Your task to perform on an android device: Go to Reddit.com Image 0: 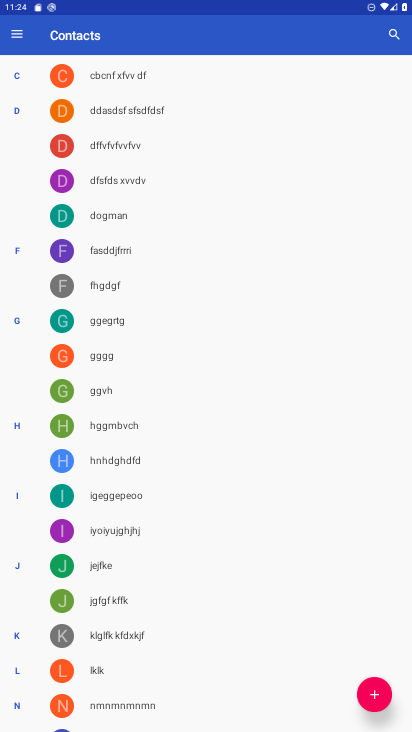
Step 0: press home button
Your task to perform on an android device: Go to Reddit.com Image 1: 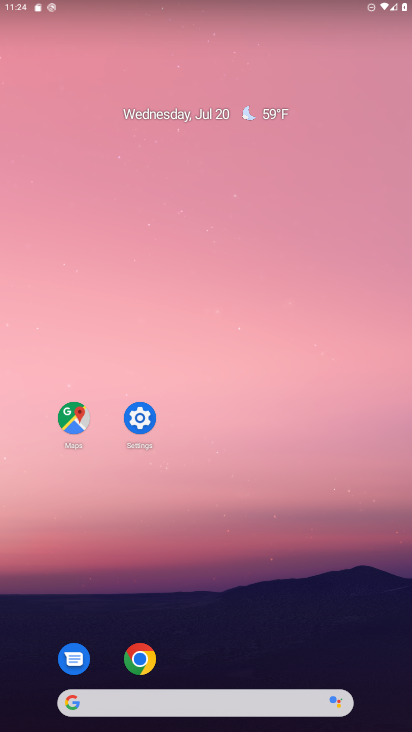
Step 1: click (142, 651)
Your task to perform on an android device: Go to Reddit.com Image 2: 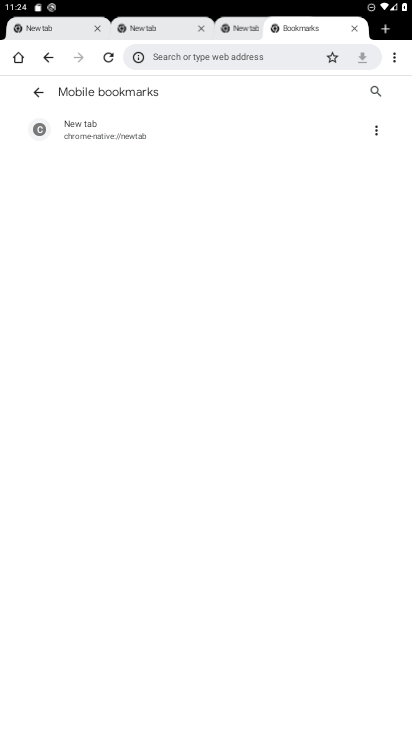
Step 2: click (241, 59)
Your task to perform on an android device: Go to Reddit.com Image 3: 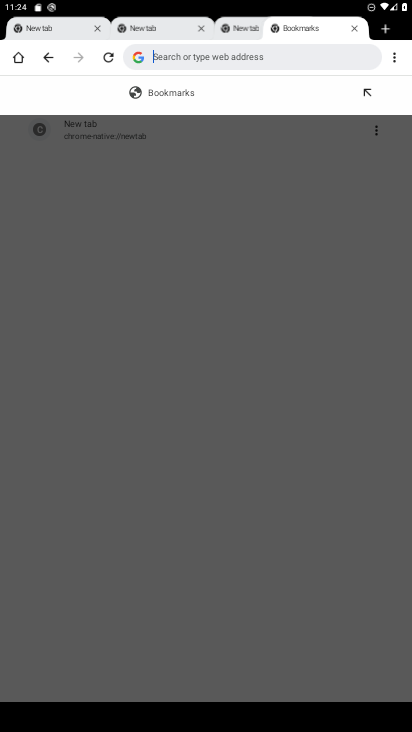
Step 3: type "Reddit.com"
Your task to perform on an android device: Go to Reddit.com Image 4: 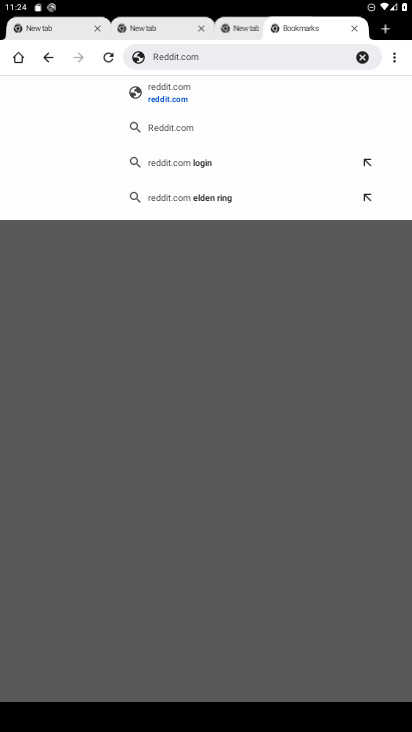
Step 4: click (168, 94)
Your task to perform on an android device: Go to Reddit.com Image 5: 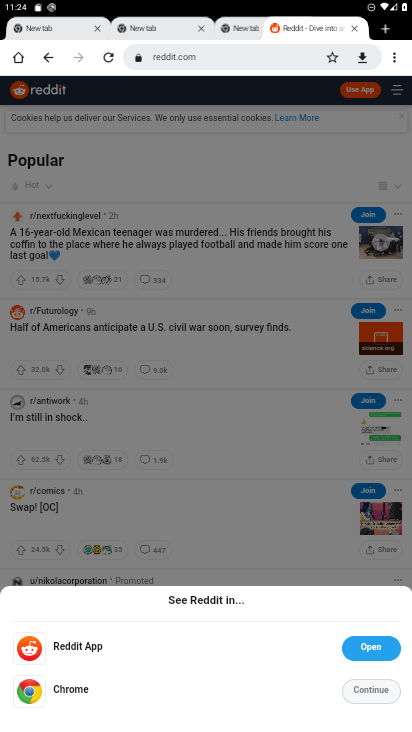
Step 5: click (67, 688)
Your task to perform on an android device: Go to Reddit.com Image 6: 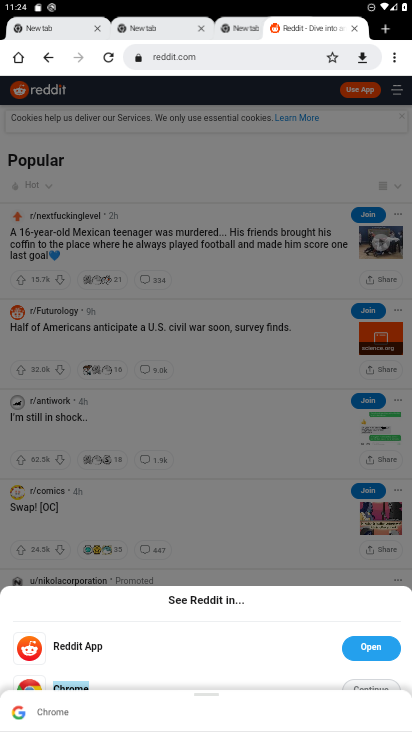
Step 6: task complete